Your task to perform on an android device: Turn on the flashlight Image 0: 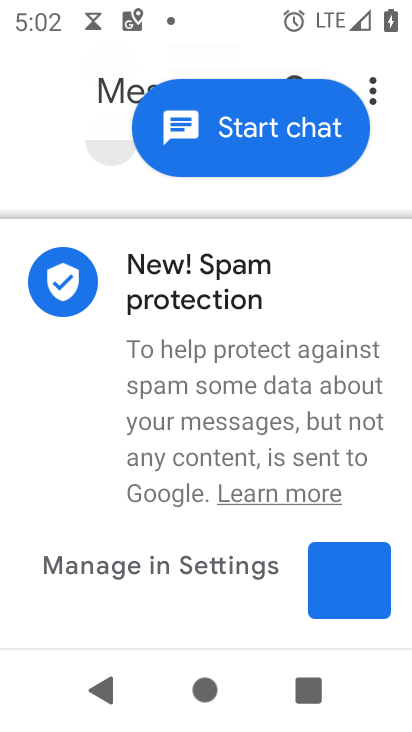
Step 0: press home button
Your task to perform on an android device: Turn on the flashlight Image 1: 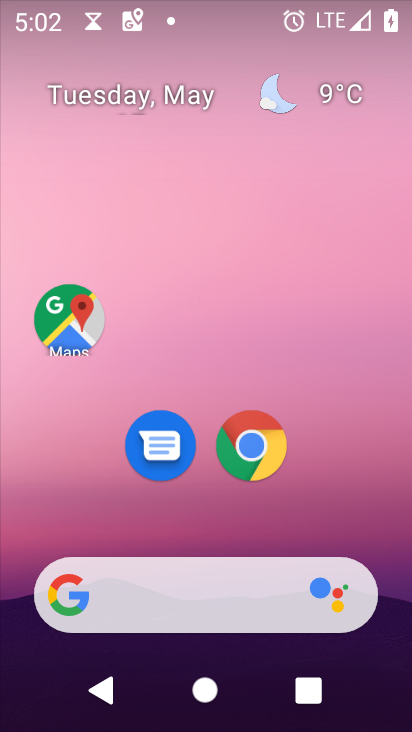
Step 1: drag from (243, 595) to (264, 7)
Your task to perform on an android device: Turn on the flashlight Image 2: 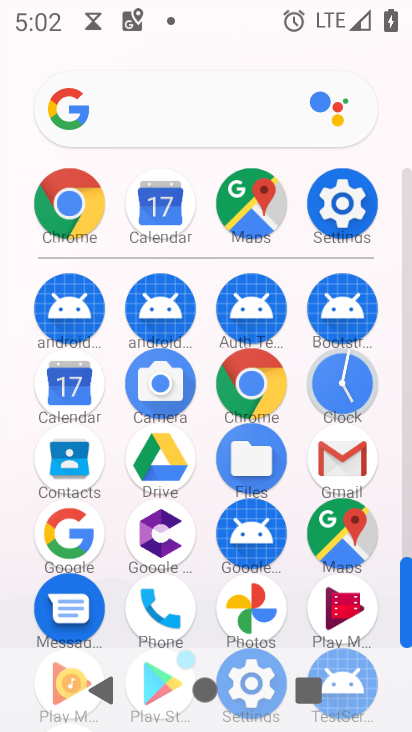
Step 2: click (340, 181)
Your task to perform on an android device: Turn on the flashlight Image 3: 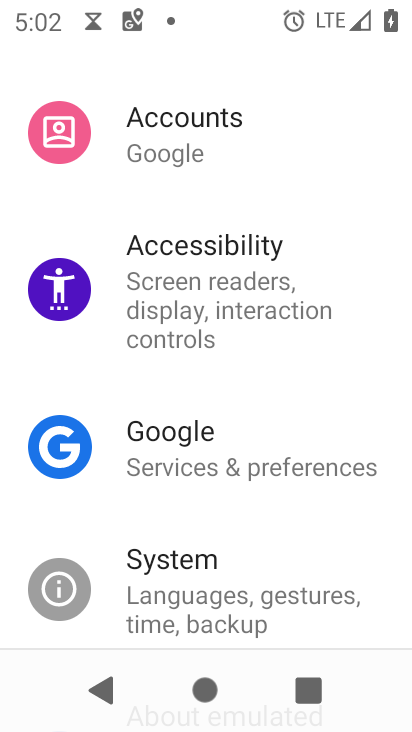
Step 3: task complete